Your task to perform on an android device: Go to battery settings Image 0: 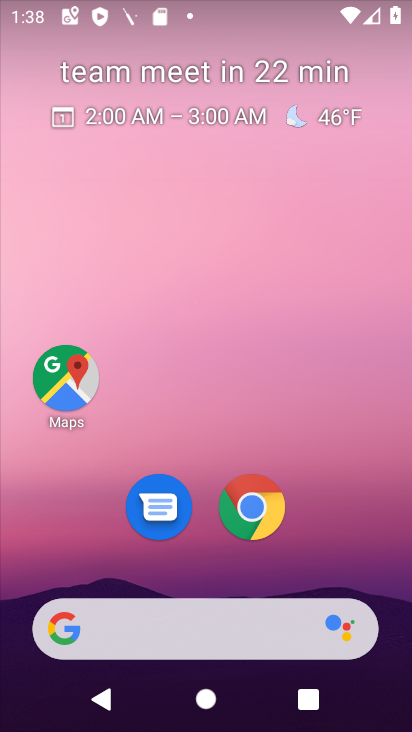
Step 0: drag from (295, 653) to (312, 154)
Your task to perform on an android device: Go to battery settings Image 1: 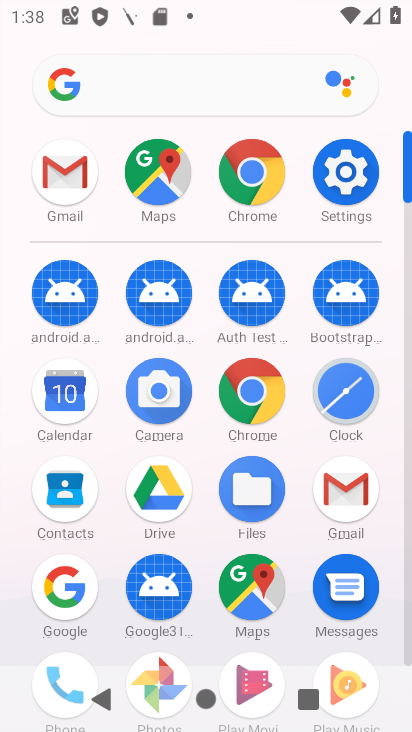
Step 1: click (370, 159)
Your task to perform on an android device: Go to battery settings Image 2: 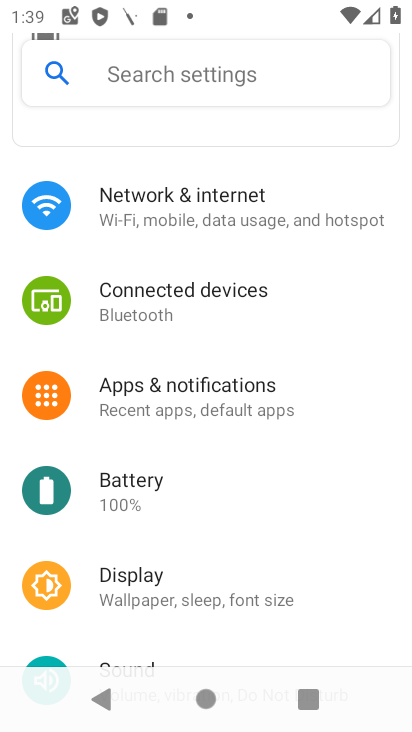
Step 2: click (172, 501)
Your task to perform on an android device: Go to battery settings Image 3: 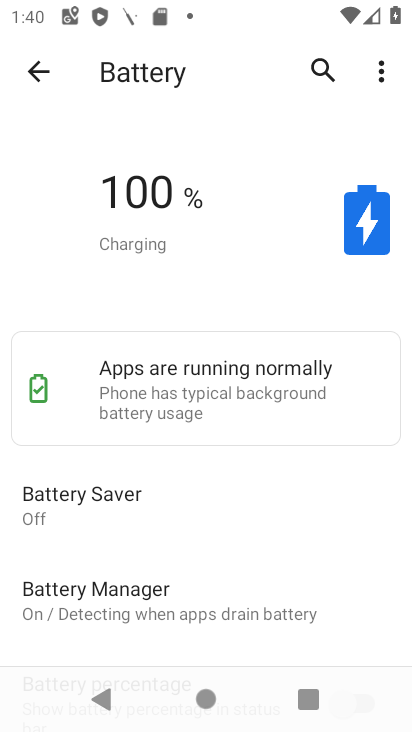
Step 3: task complete